Your task to perform on an android device: delete the emails in spam in the gmail app Image 0: 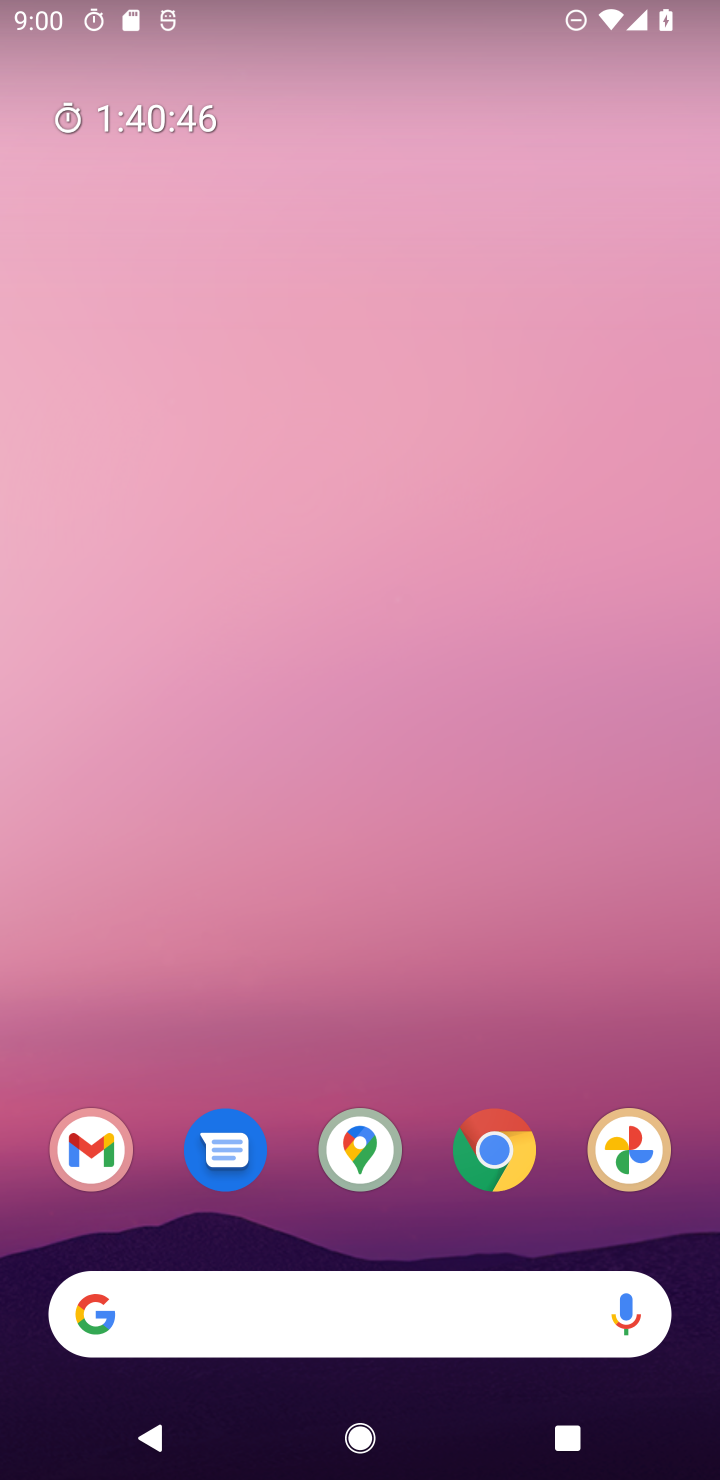
Step 0: drag from (523, 1053) to (663, 28)
Your task to perform on an android device: delete the emails in spam in the gmail app Image 1: 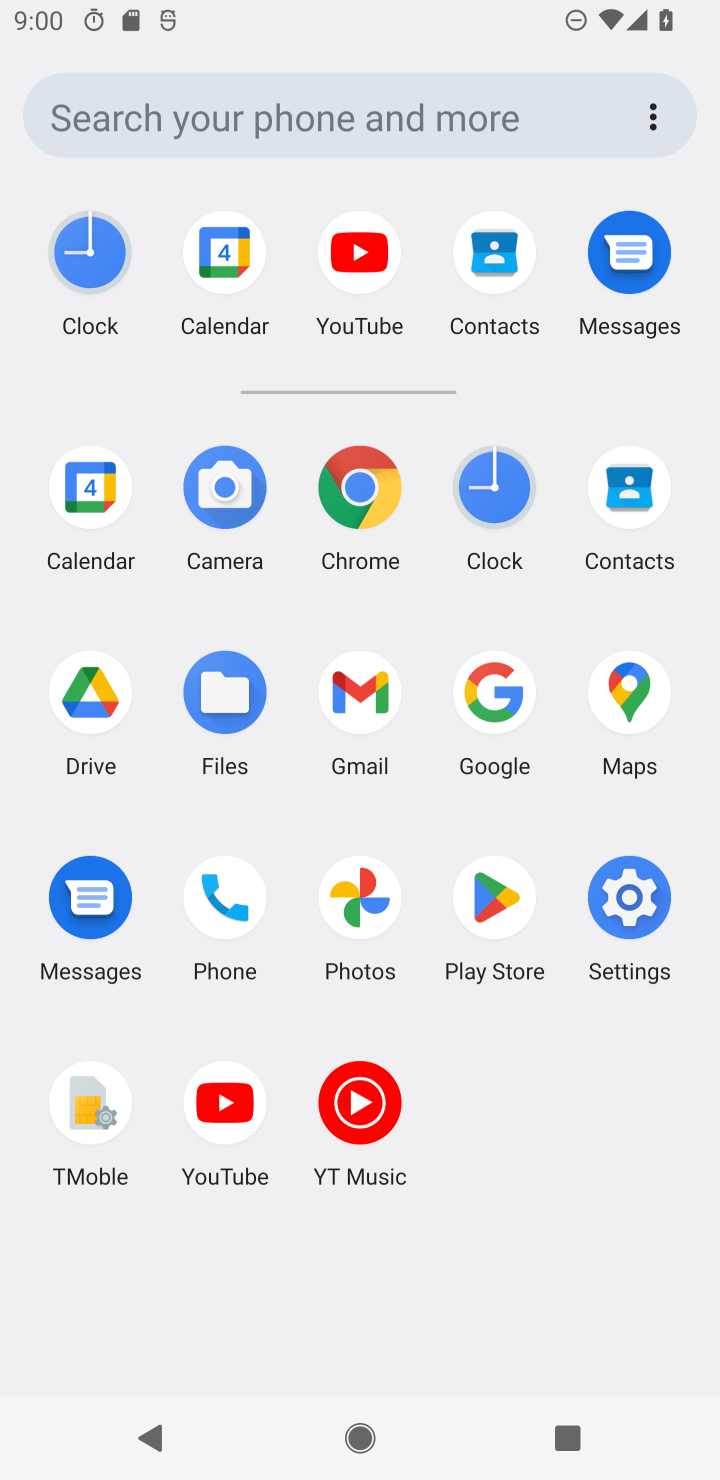
Step 1: click (374, 690)
Your task to perform on an android device: delete the emails in spam in the gmail app Image 2: 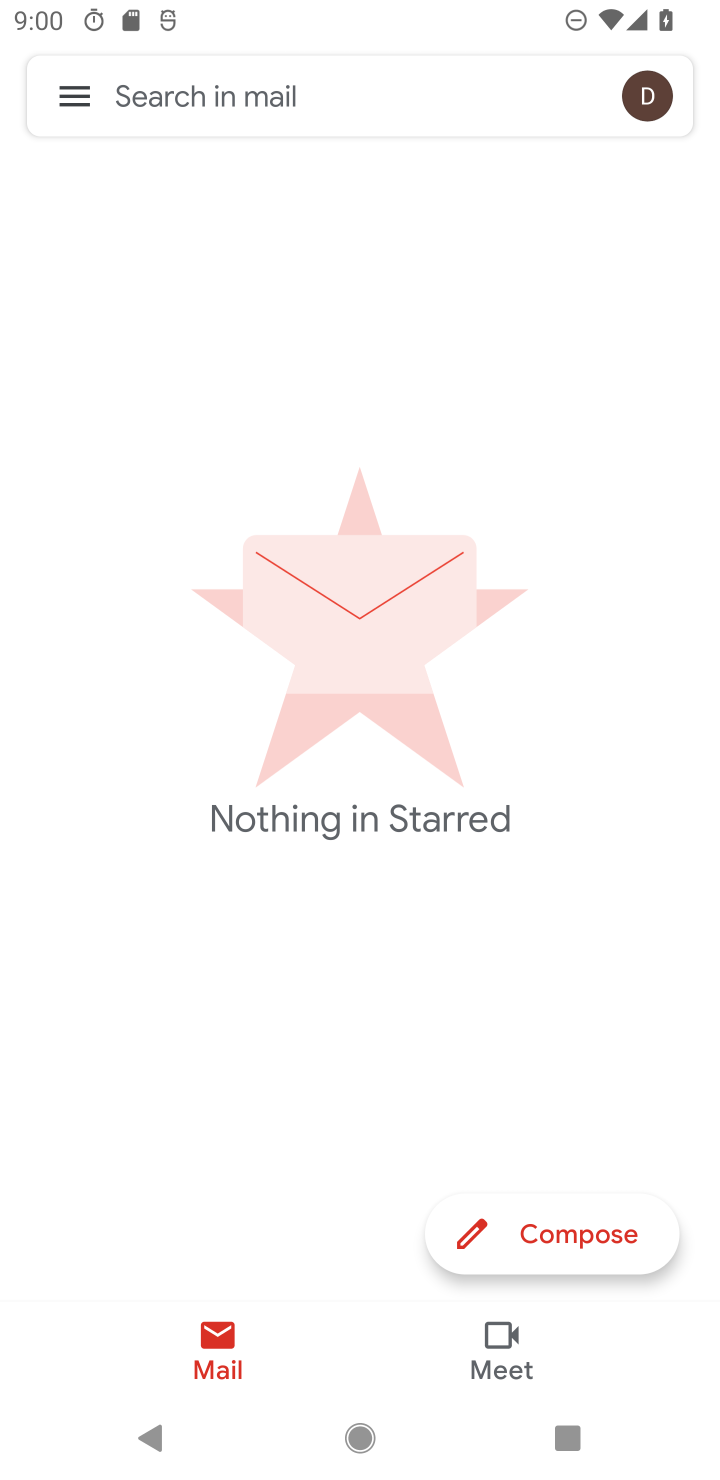
Step 2: click (81, 99)
Your task to perform on an android device: delete the emails in spam in the gmail app Image 3: 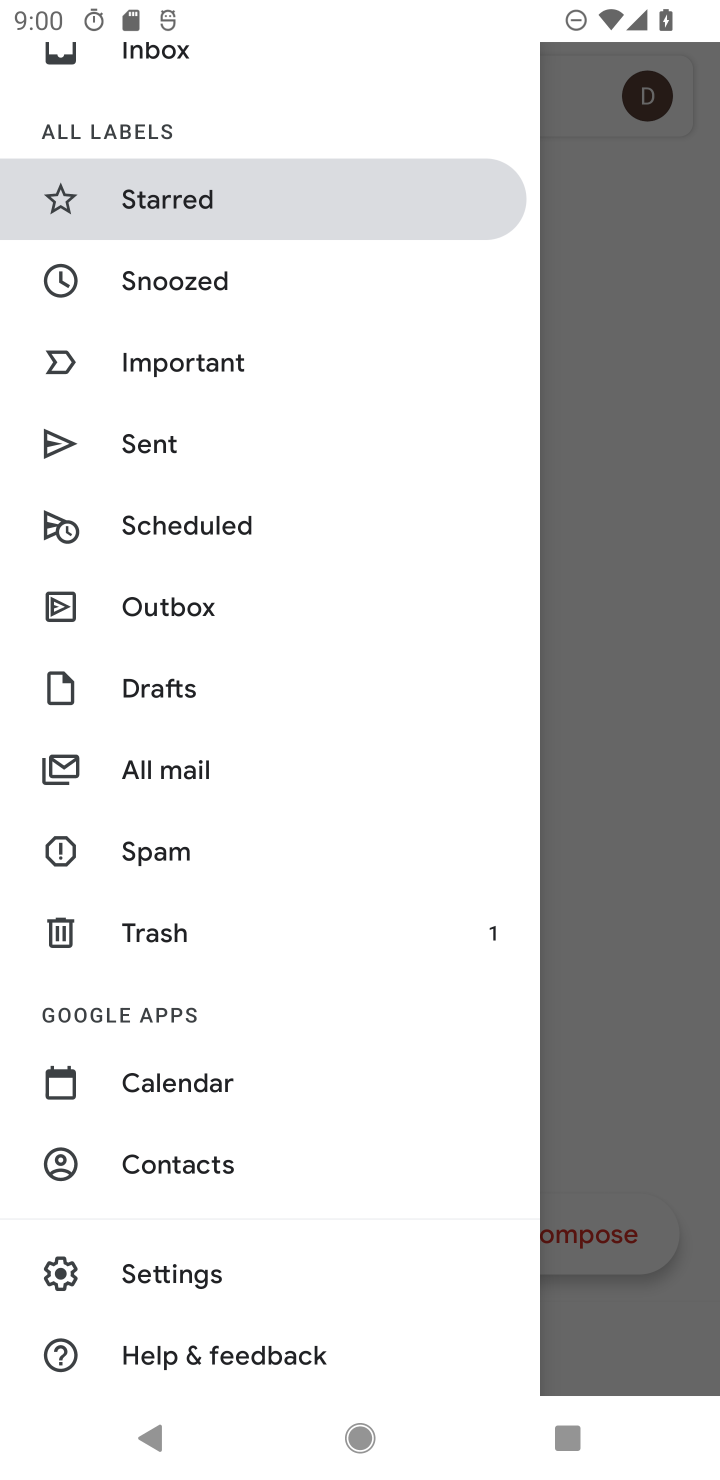
Step 3: click (222, 850)
Your task to perform on an android device: delete the emails in spam in the gmail app Image 4: 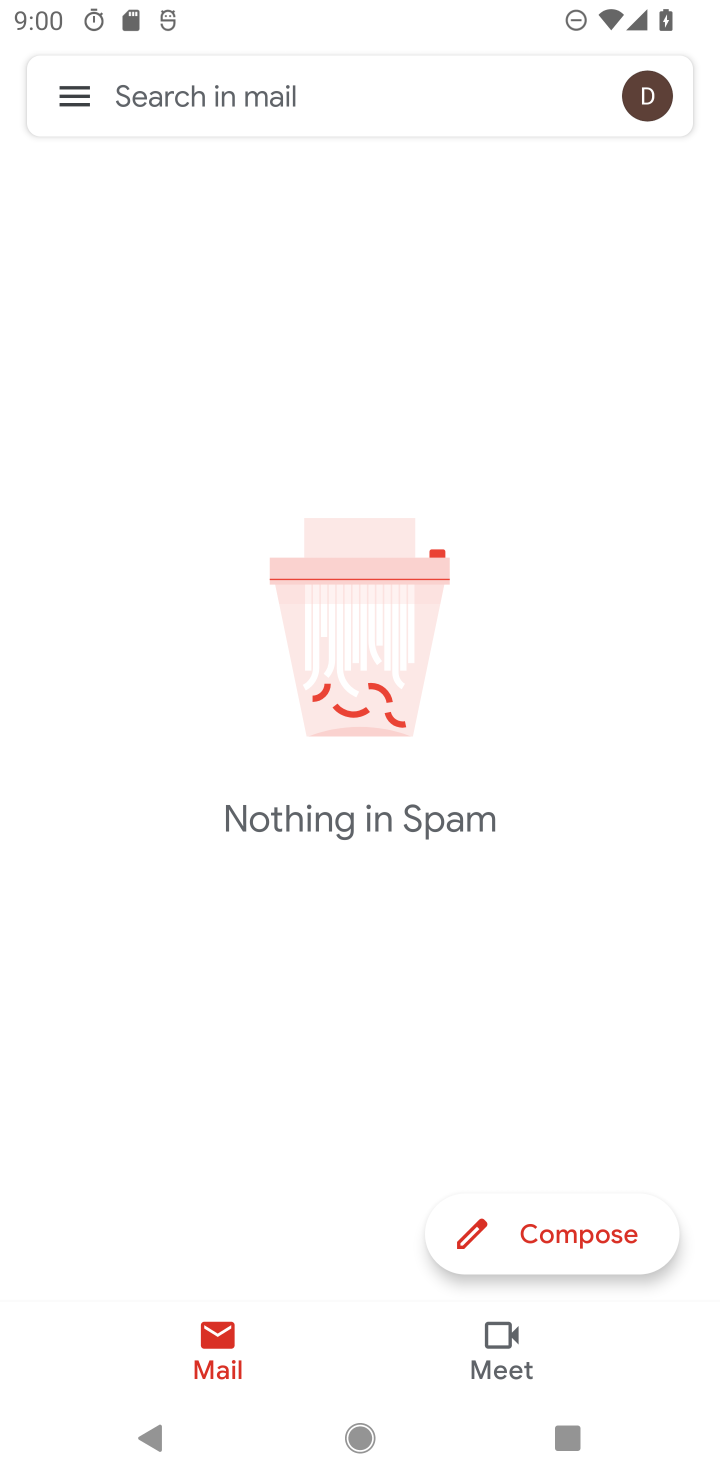
Step 4: task complete